Your task to perform on an android device: Open the stopwatch Image 0: 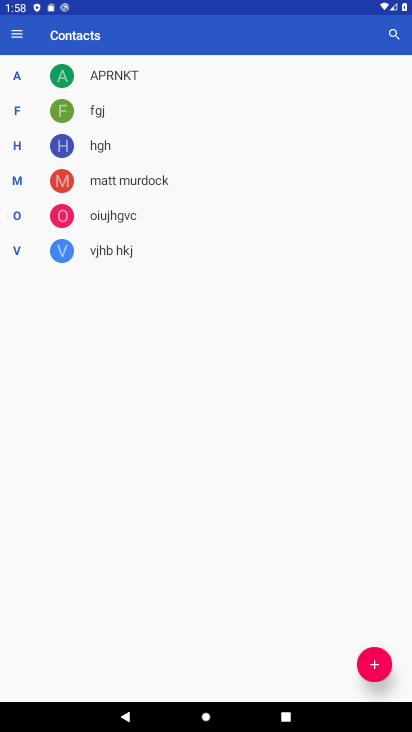
Step 0: press home button
Your task to perform on an android device: Open the stopwatch Image 1: 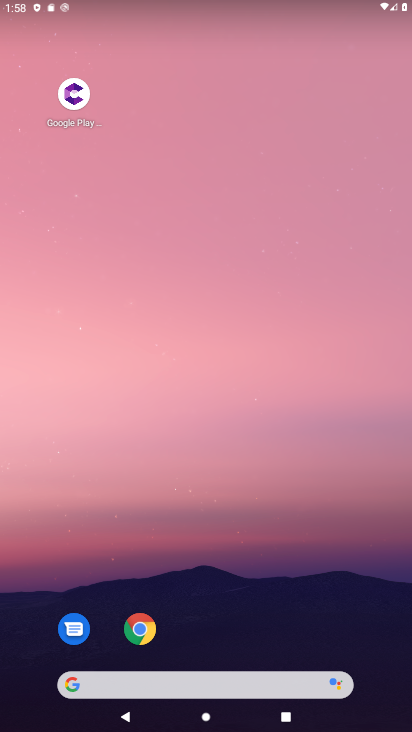
Step 1: drag from (45, 701) to (214, 81)
Your task to perform on an android device: Open the stopwatch Image 2: 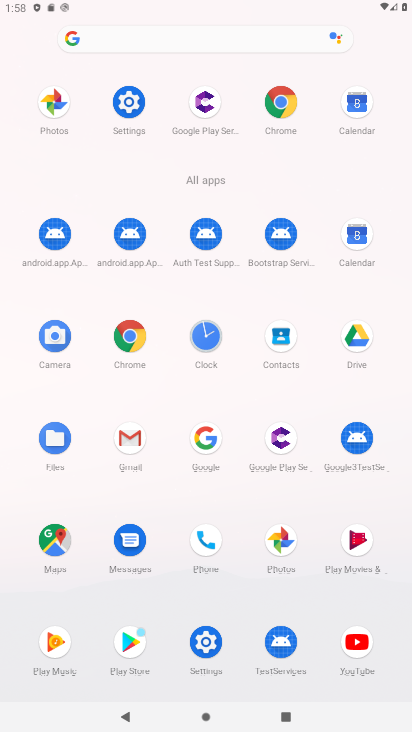
Step 2: click (200, 333)
Your task to perform on an android device: Open the stopwatch Image 3: 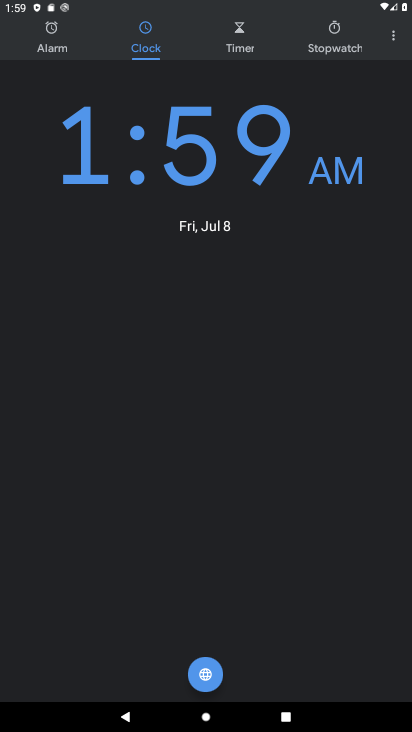
Step 3: click (342, 36)
Your task to perform on an android device: Open the stopwatch Image 4: 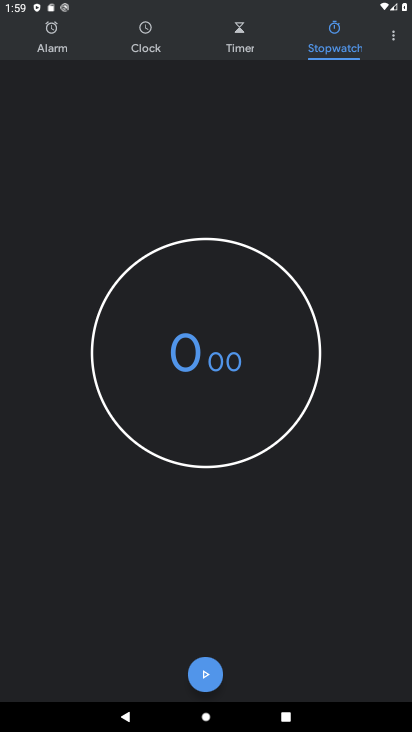
Step 4: task complete